Your task to perform on an android device: all mails in gmail Image 0: 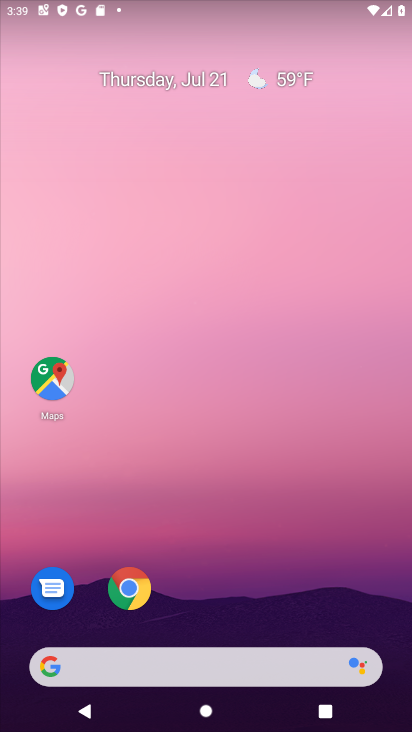
Step 0: drag from (240, 708) to (240, 301)
Your task to perform on an android device: all mails in gmail Image 1: 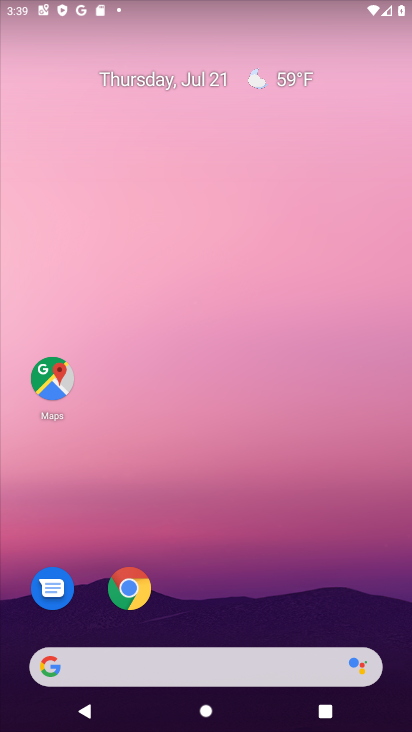
Step 1: drag from (226, 701) to (237, 45)
Your task to perform on an android device: all mails in gmail Image 2: 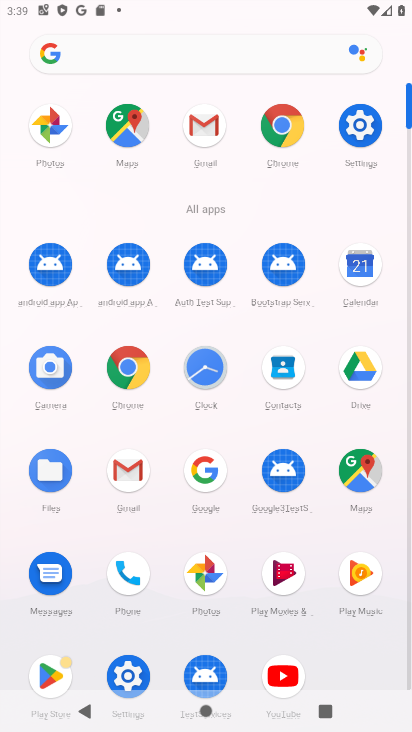
Step 2: click (127, 469)
Your task to perform on an android device: all mails in gmail Image 3: 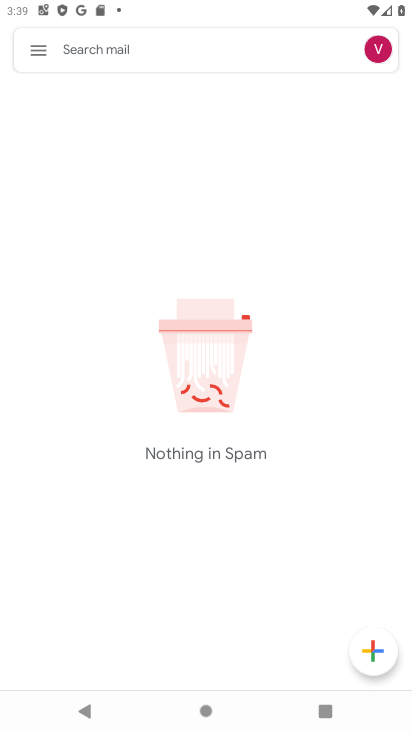
Step 3: click (42, 44)
Your task to perform on an android device: all mails in gmail Image 4: 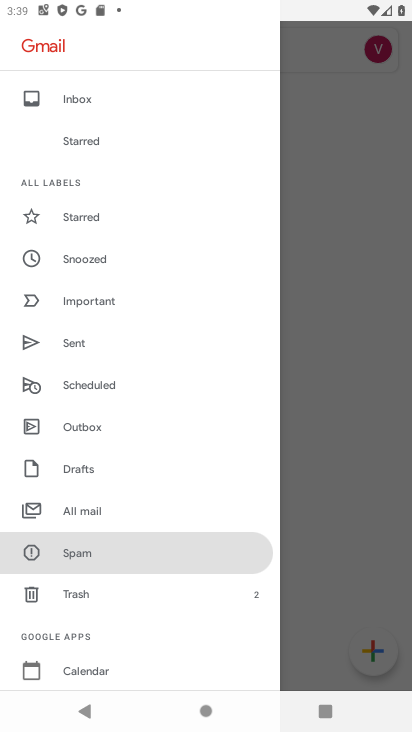
Step 4: click (80, 505)
Your task to perform on an android device: all mails in gmail Image 5: 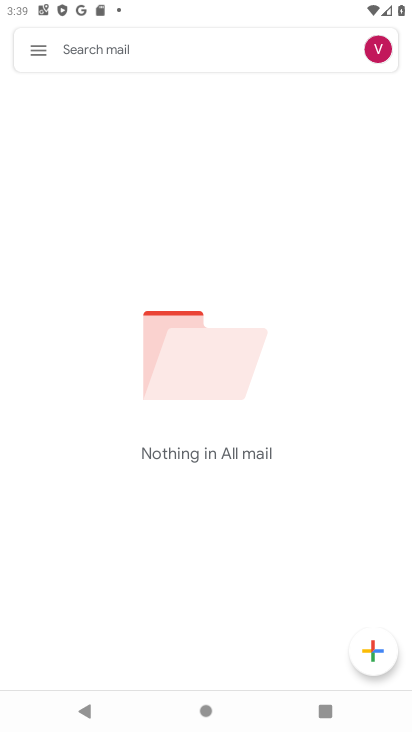
Step 5: task complete